Your task to perform on an android device: Go to network settings Image 0: 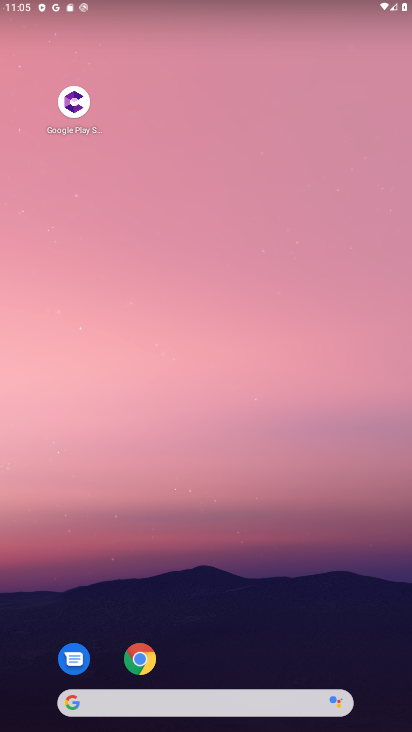
Step 0: drag from (238, 595) to (194, 121)
Your task to perform on an android device: Go to network settings Image 1: 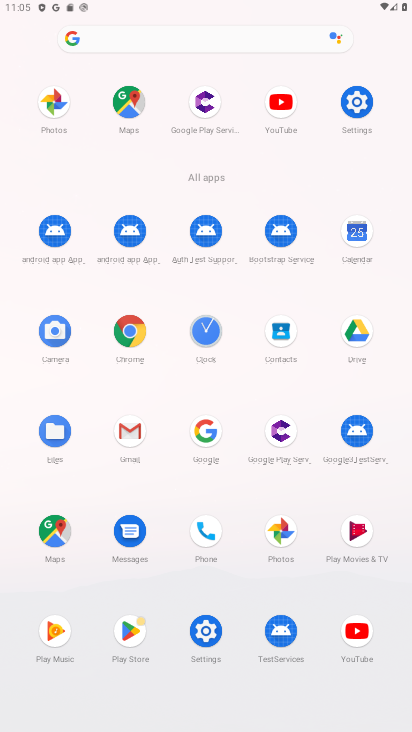
Step 1: click (357, 106)
Your task to perform on an android device: Go to network settings Image 2: 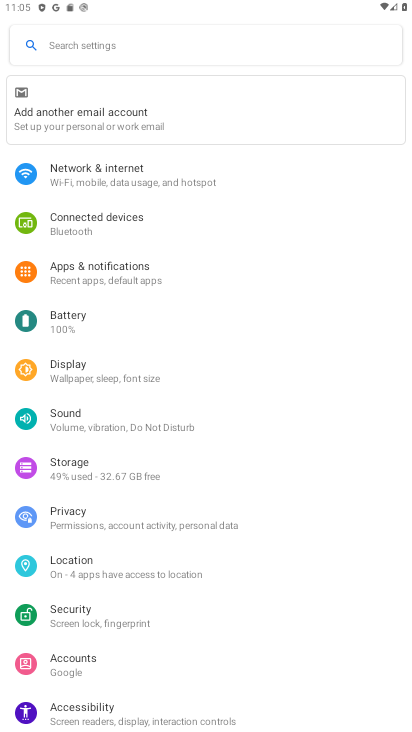
Step 2: click (94, 166)
Your task to perform on an android device: Go to network settings Image 3: 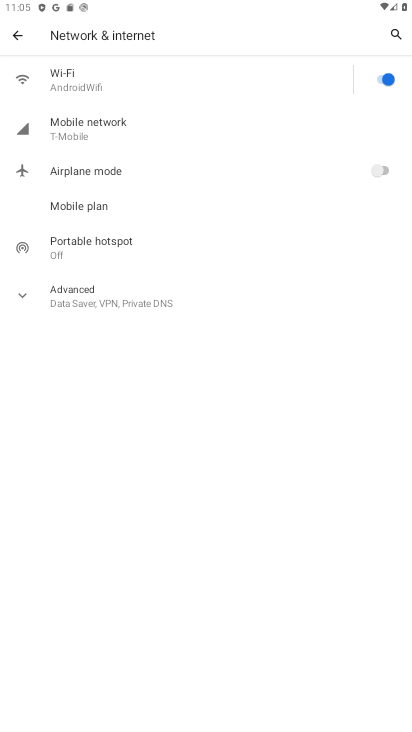
Step 3: click (82, 123)
Your task to perform on an android device: Go to network settings Image 4: 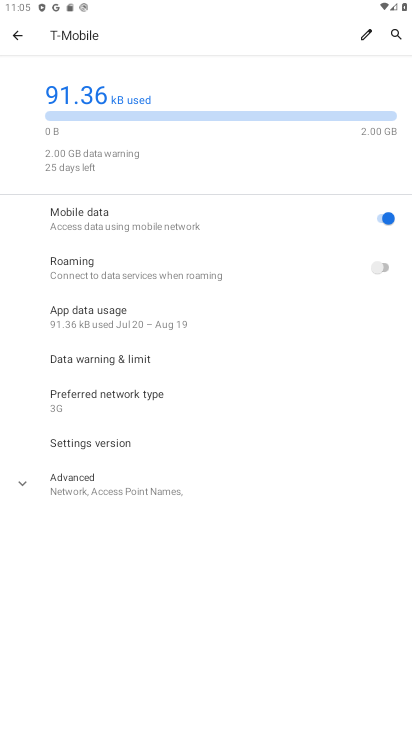
Step 4: task complete